Your task to perform on an android device: show emergency info Image 0: 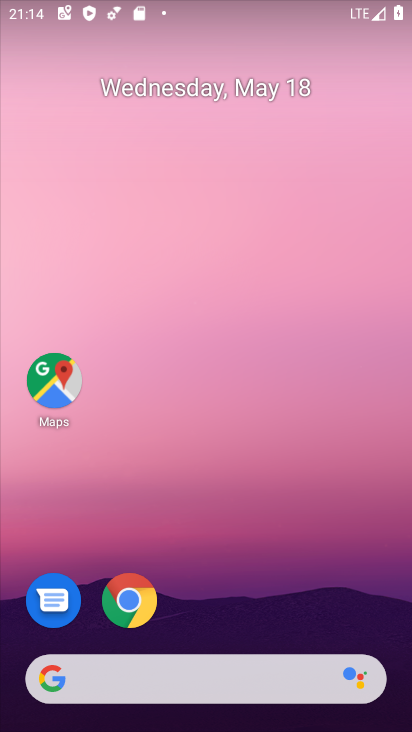
Step 0: drag from (224, 621) to (293, 110)
Your task to perform on an android device: show emergency info Image 1: 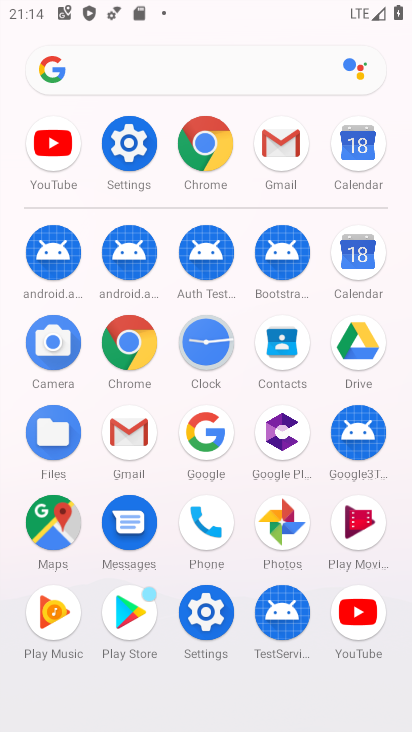
Step 1: click (134, 154)
Your task to perform on an android device: show emergency info Image 2: 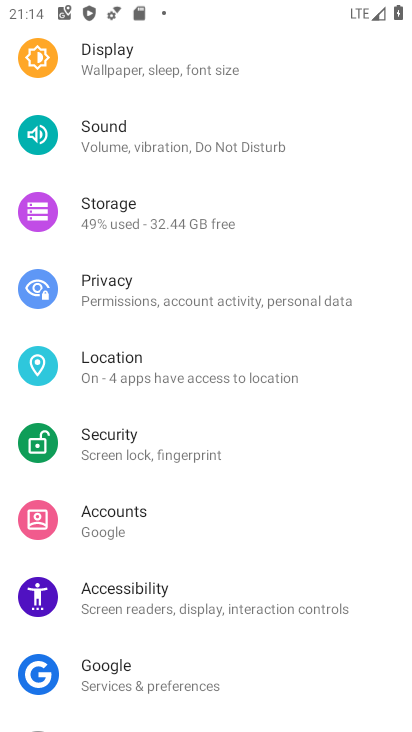
Step 2: drag from (163, 700) to (353, 66)
Your task to perform on an android device: show emergency info Image 3: 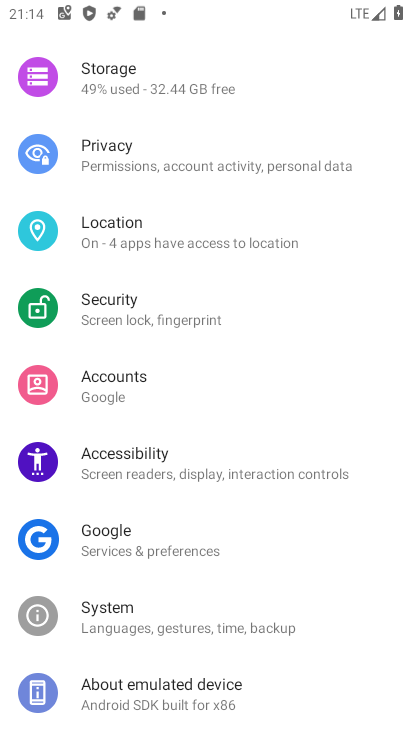
Step 3: drag from (154, 653) to (254, 101)
Your task to perform on an android device: show emergency info Image 4: 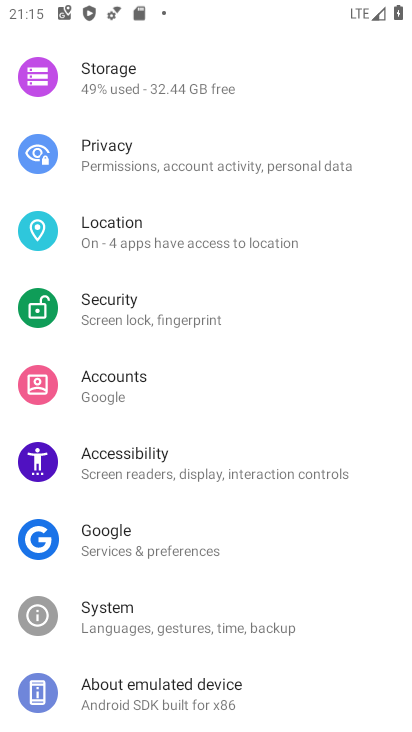
Step 4: click (161, 692)
Your task to perform on an android device: show emergency info Image 5: 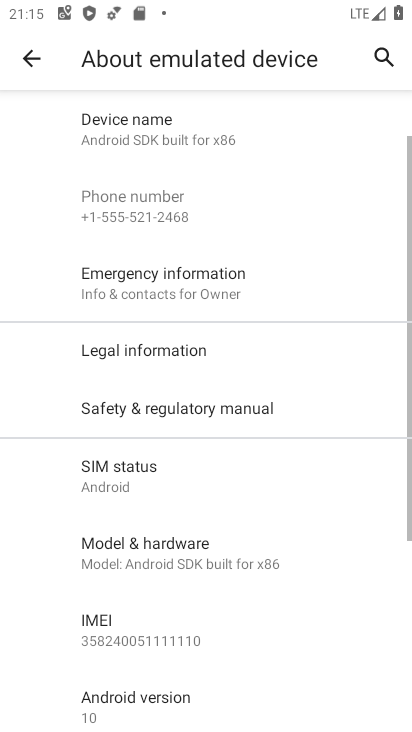
Step 5: click (157, 267)
Your task to perform on an android device: show emergency info Image 6: 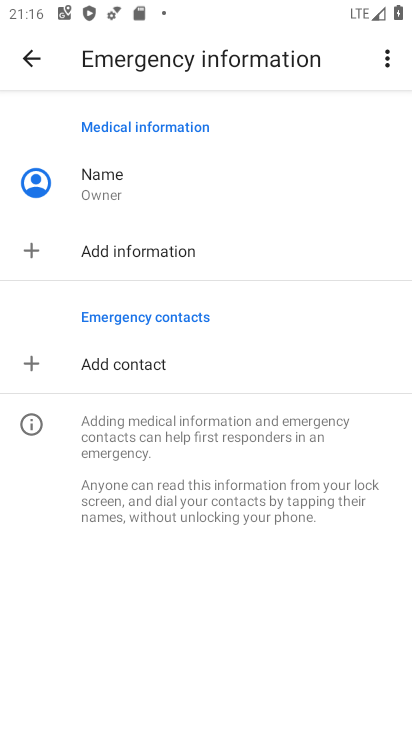
Step 6: task complete